Your task to perform on an android device: Toggle the flashlight Image 0: 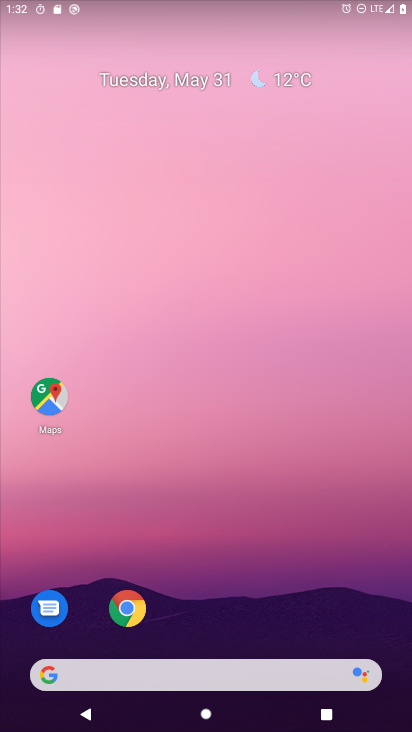
Step 0: drag from (191, 2) to (202, 687)
Your task to perform on an android device: Toggle the flashlight Image 1: 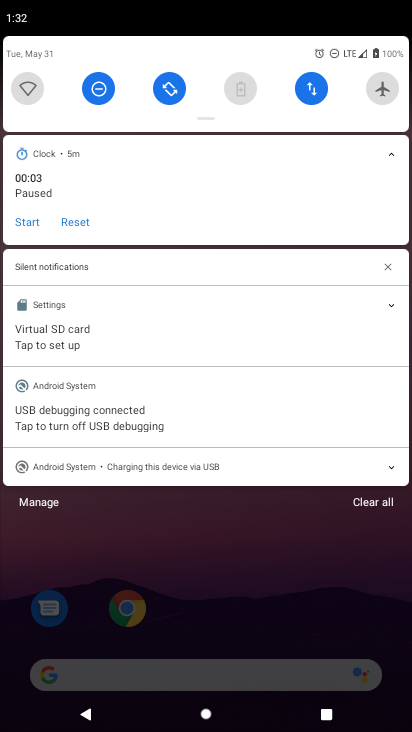
Step 1: task complete